Your task to perform on an android device: turn on the 12-hour format for clock Image 0: 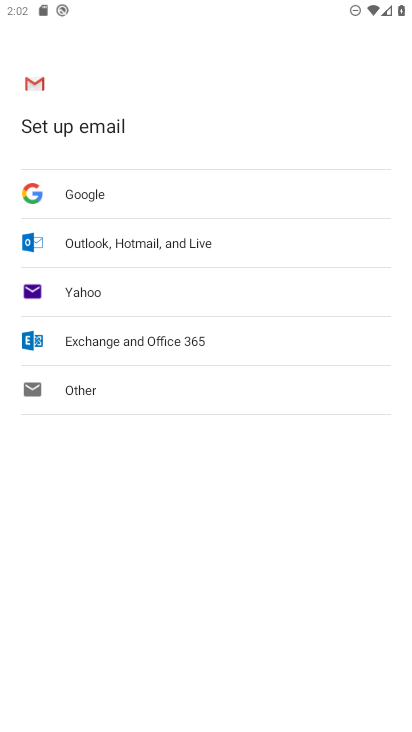
Step 0: press home button
Your task to perform on an android device: turn on the 12-hour format for clock Image 1: 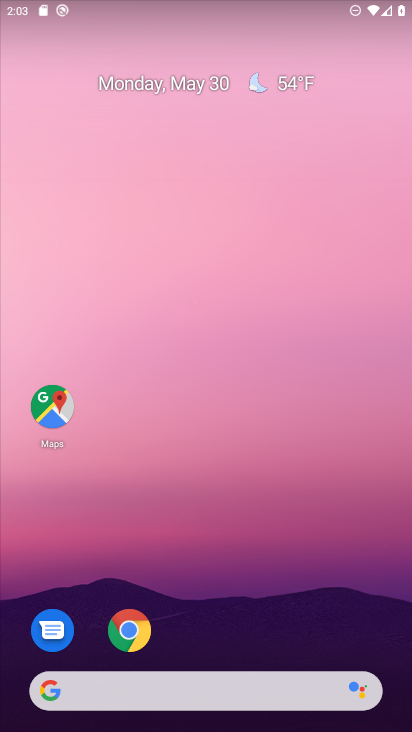
Step 1: drag from (250, 657) to (269, 140)
Your task to perform on an android device: turn on the 12-hour format for clock Image 2: 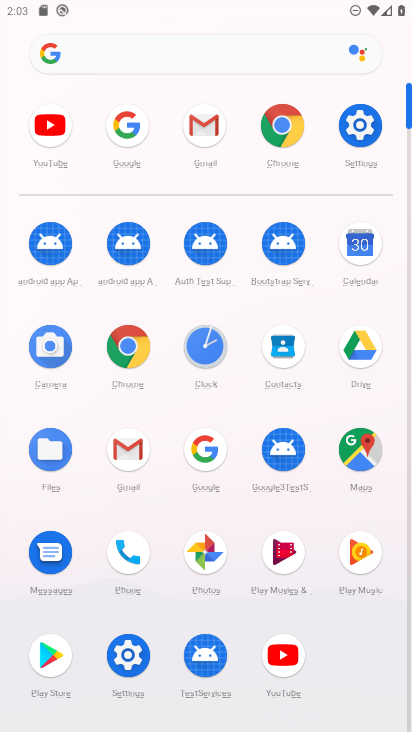
Step 2: click (124, 666)
Your task to perform on an android device: turn on the 12-hour format for clock Image 3: 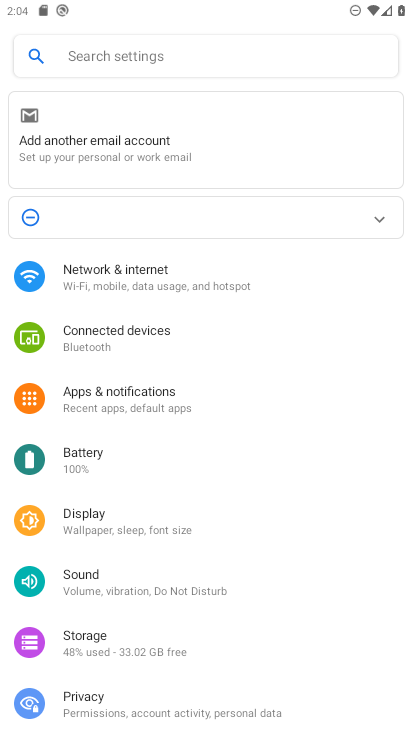
Step 3: drag from (110, 640) to (128, 241)
Your task to perform on an android device: turn on the 12-hour format for clock Image 4: 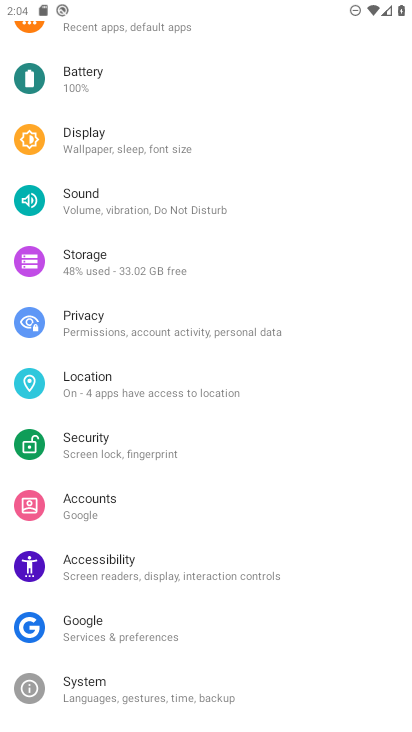
Step 4: click (143, 679)
Your task to perform on an android device: turn on the 12-hour format for clock Image 5: 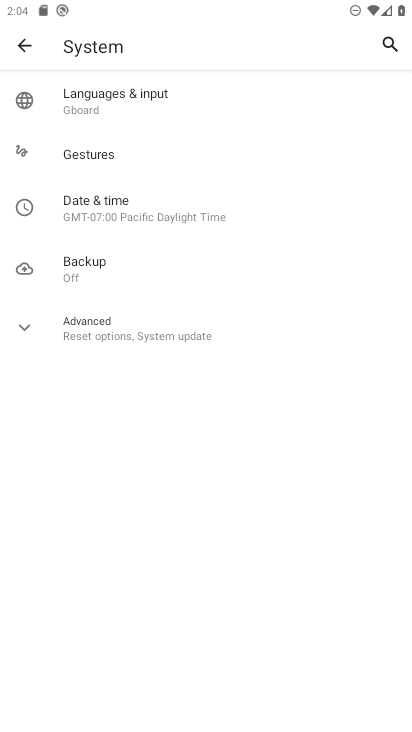
Step 5: click (134, 210)
Your task to perform on an android device: turn on the 12-hour format for clock Image 6: 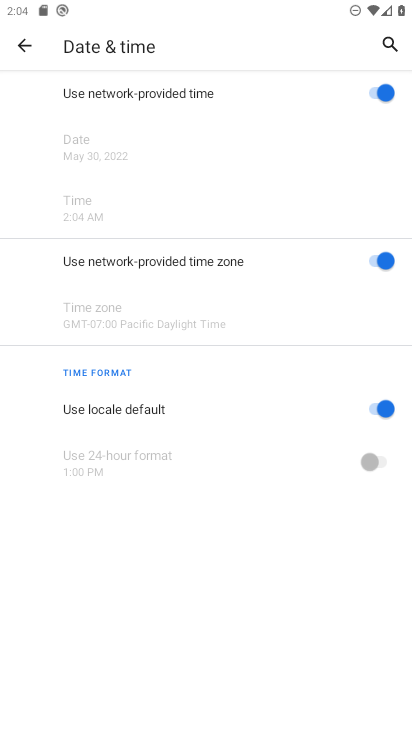
Step 6: task complete